Your task to perform on an android device: Open Google Maps Image 0: 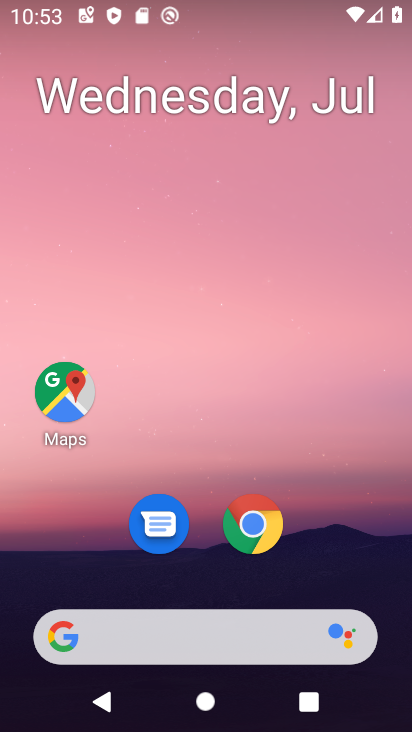
Step 0: press home button
Your task to perform on an android device: Open Google Maps Image 1: 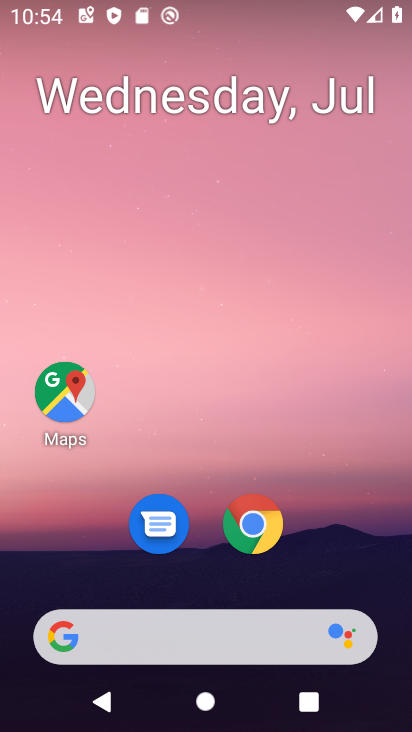
Step 1: click (69, 394)
Your task to perform on an android device: Open Google Maps Image 2: 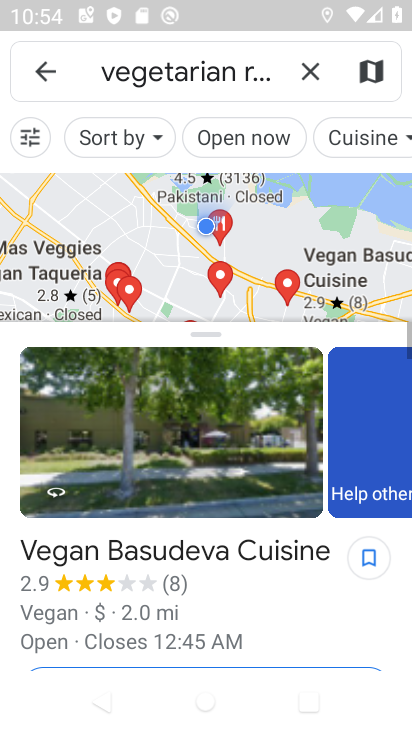
Step 2: click (50, 73)
Your task to perform on an android device: Open Google Maps Image 3: 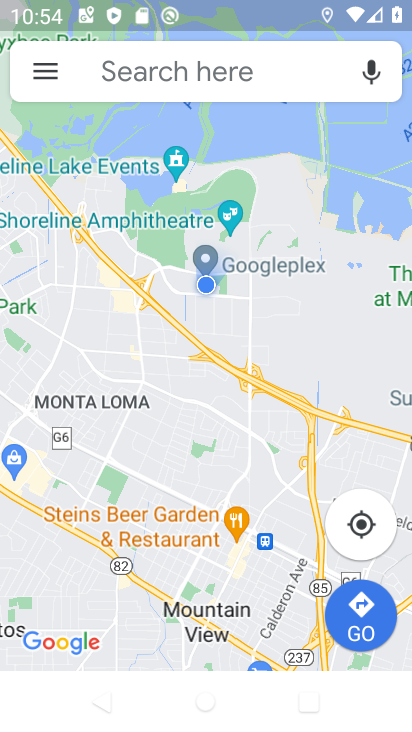
Step 3: task complete